Your task to perform on an android device: Open the Play Movies app and select the watchlist tab. Image 0: 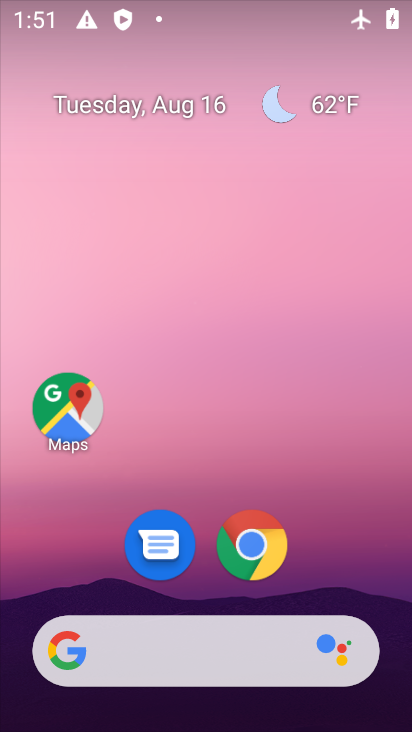
Step 0: drag from (227, 585) to (274, 291)
Your task to perform on an android device: Open the Play Movies app and select the watchlist tab. Image 1: 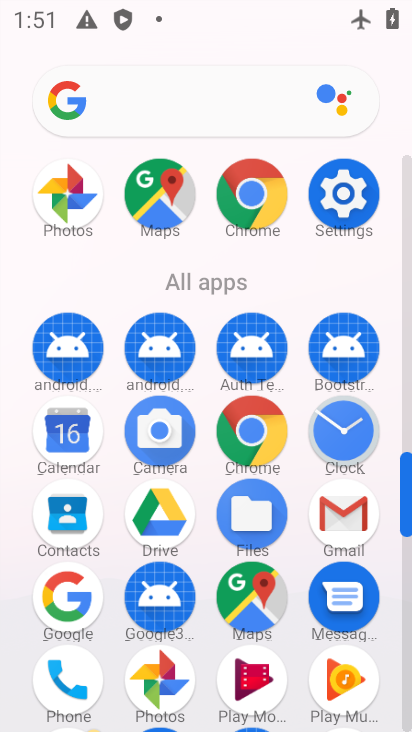
Step 1: click (266, 685)
Your task to perform on an android device: Open the Play Movies app and select the watchlist tab. Image 2: 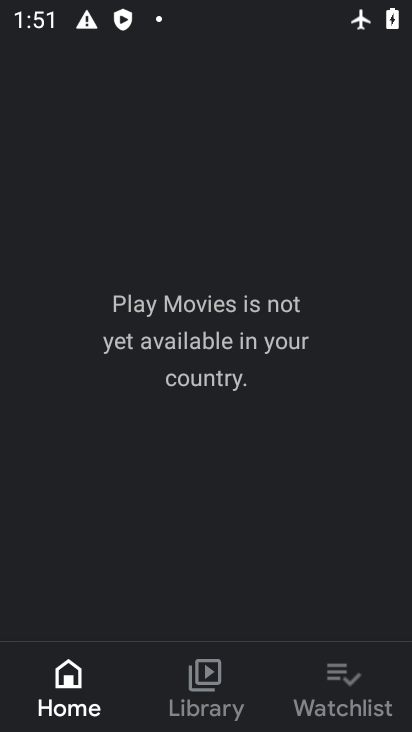
Step 2: click (347, 673)
Your task to perform on an android device: Open the Play Movies app and select the watchlist tab. Image 3: 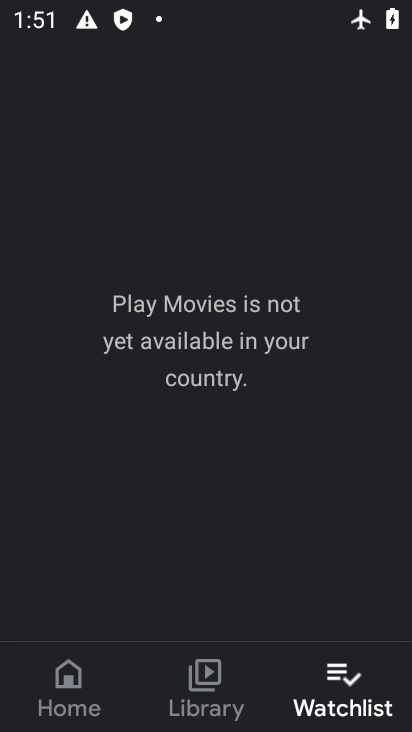
Step 3: task complete